Your task to perform on an android device: Open wifi settings Image 0: 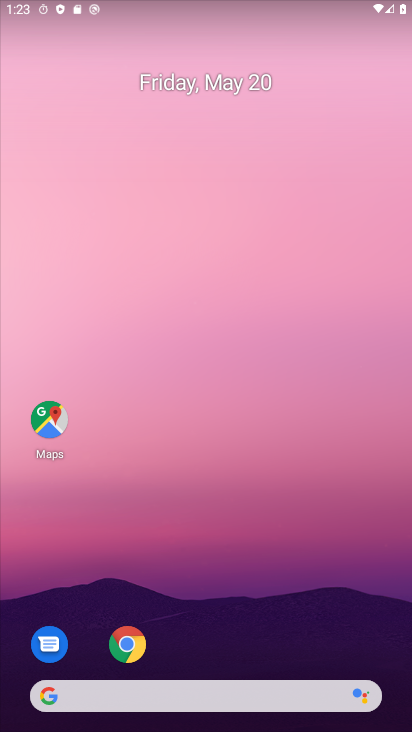
Step 0: drag from (147, 15) to (34, 687)
Your task to perform on an android device: Open wifi settings Image 1: 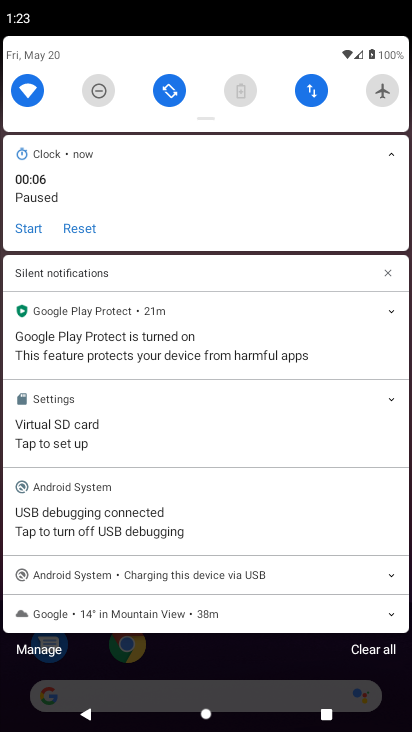
Step 1: click (39, 102)
Your task to perform on an android device: Open wifi settings Image 2: 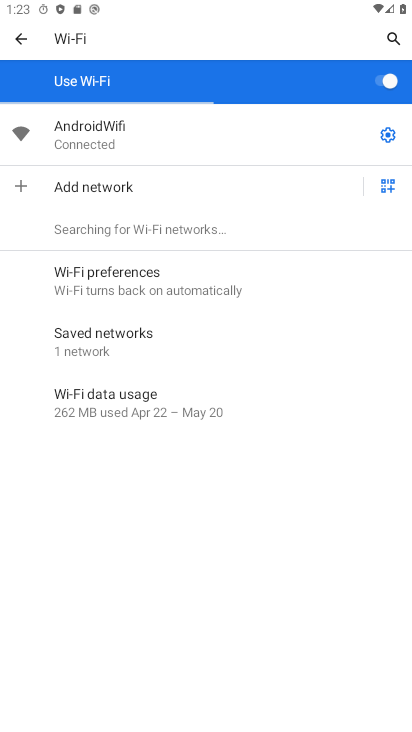
Step 2: task complete